Your task to perform on an android device: choose inbox layout in the gmail app Image 0: 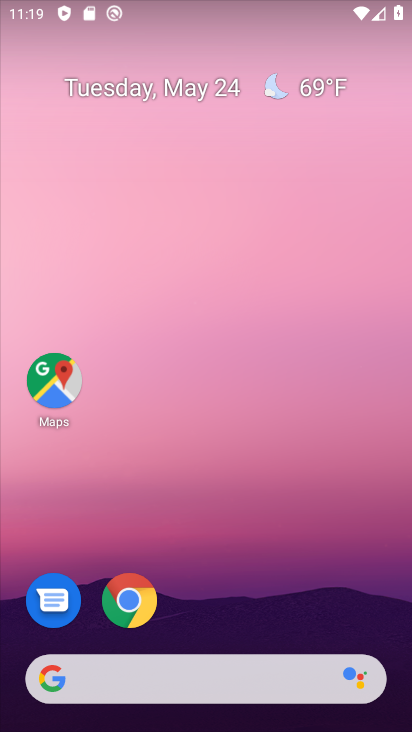
Step 0: drag from (359, 610) to (339, 190)
Your task to perform on an android device: choose inbox layout in the gmail app Image 1: 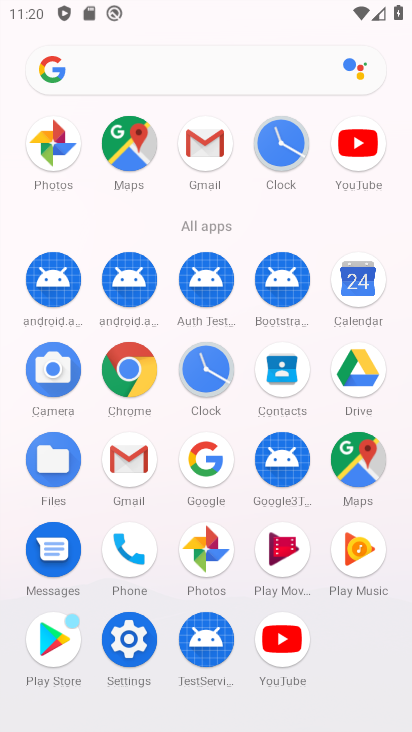
Step 1: click (131, 470)
Your task to perform on an android device: choose inbox layout in the gmail app Image 2: 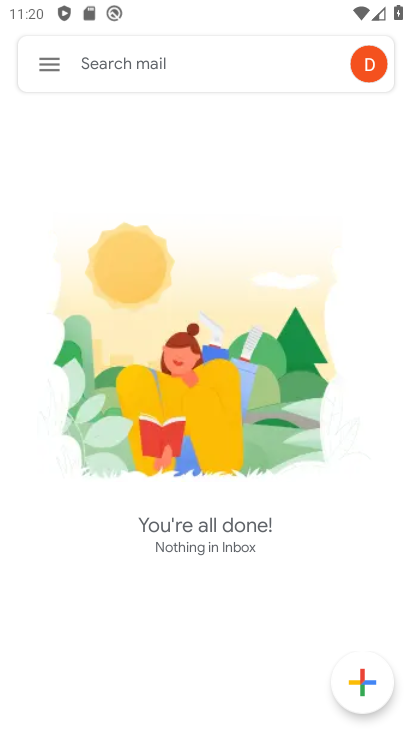
Step 2: click (48, 71)
Your task to perform on an android device: choose inbox layout in the gmail app Image 3: 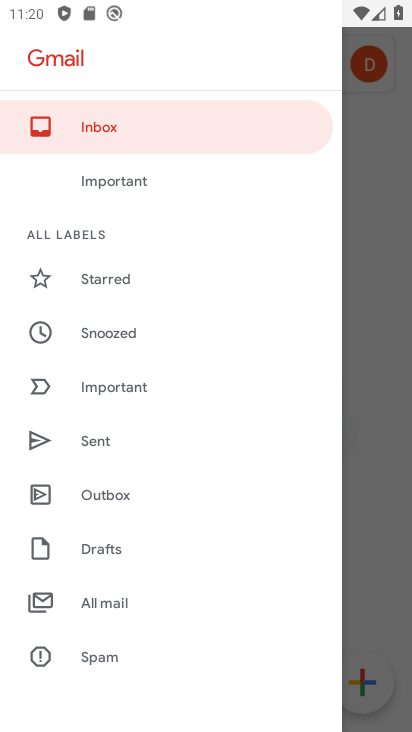
Step 3: drag from (275, 536) to (283, 420)
Your task to perform on an android device: choose inbox layout in the gmail app Image 4: 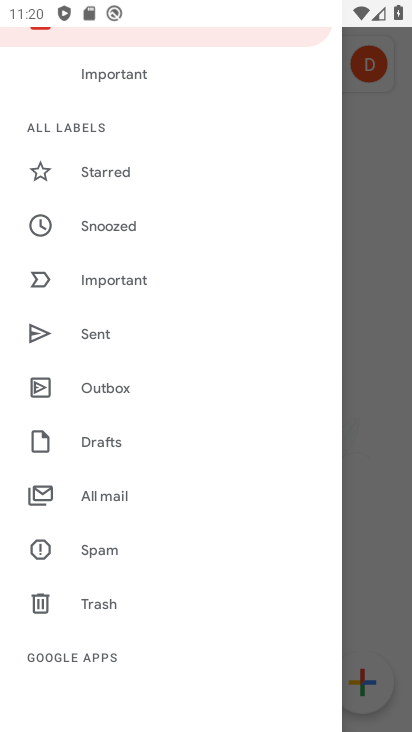
Step 4: drag from (266, 528) to (290, 423)
Your task to perform on an android device: choose inbox layout in the gmail app Image 5: 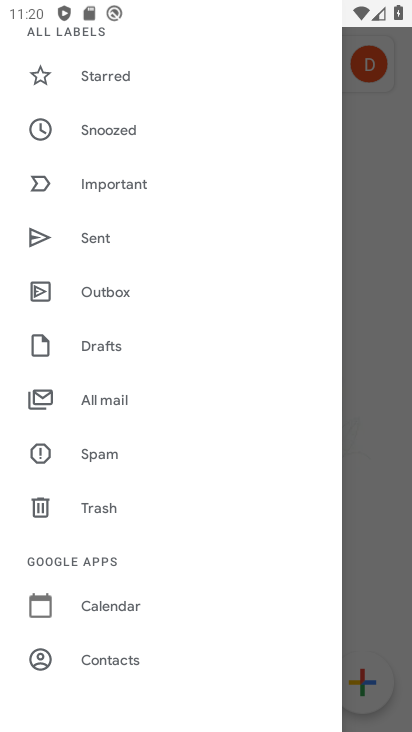
Step 5: drag from (273, 535) to (280, 437)
Your task to perform on an android device: choose inbox layout in the gmail app Image 6: 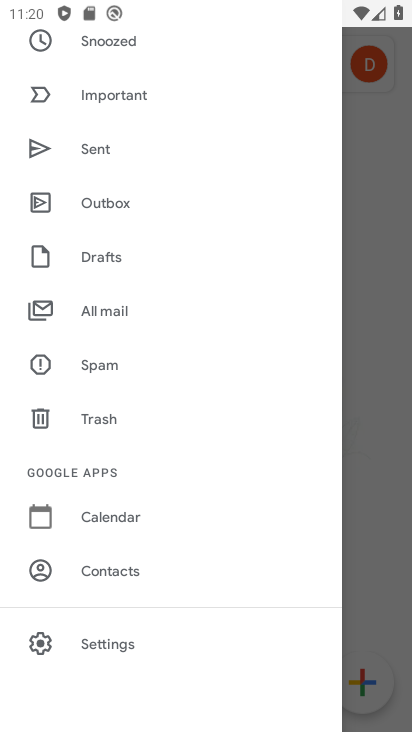
Step 6: drag from (262, 555) to (258, 464)
Your task to perform on an android device: choose inbox layout in the gmail app Image 7: 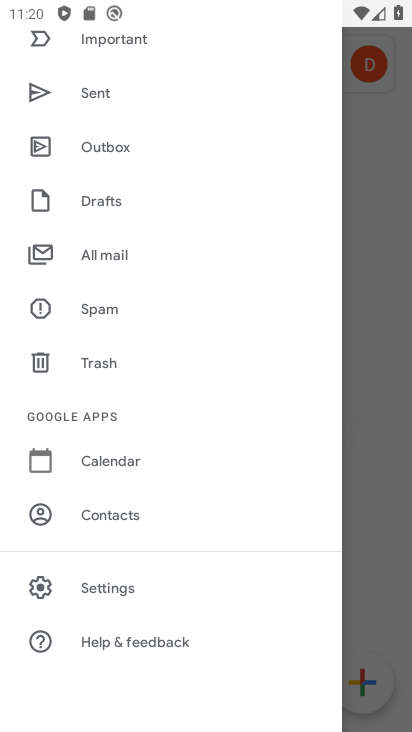
Step 7: drag from (253, 588) to (274, 470)
Your task to perform on an android device: choose inbox layout in the gmail app Image 8: 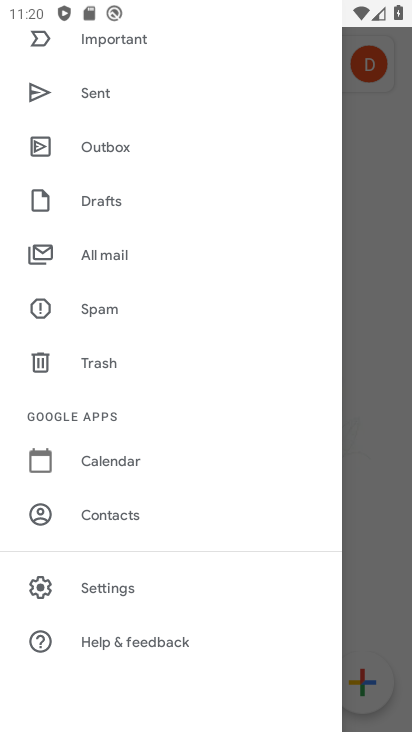
Step 8: drag from (266, 325) to (255, 430)
Your task to perform on an android device: choose inbox layout in the gmail app Image 9: 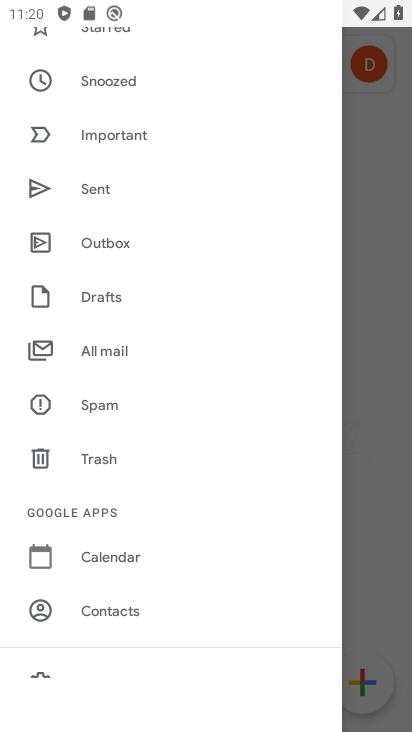
Step 9: drag from (266, 305) to (269, 412)
Your task to perform on an android device: choose inbox layout in the gmail app Image 10: 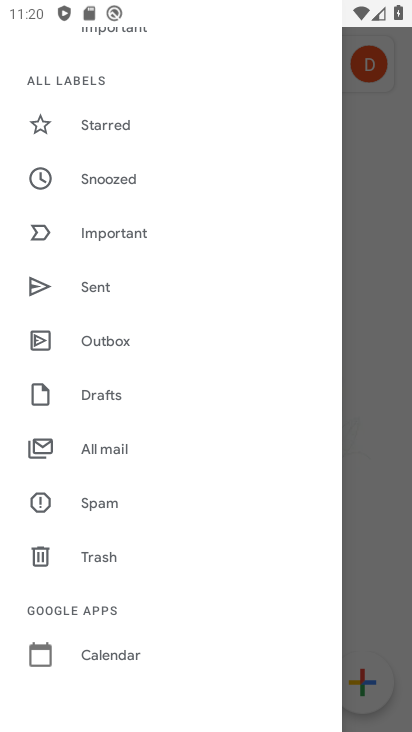
Step 10: drag from (285, 295) to (284, 385)
Your task to perform on an android device: choose inbox layout in the gmail app Image 11: 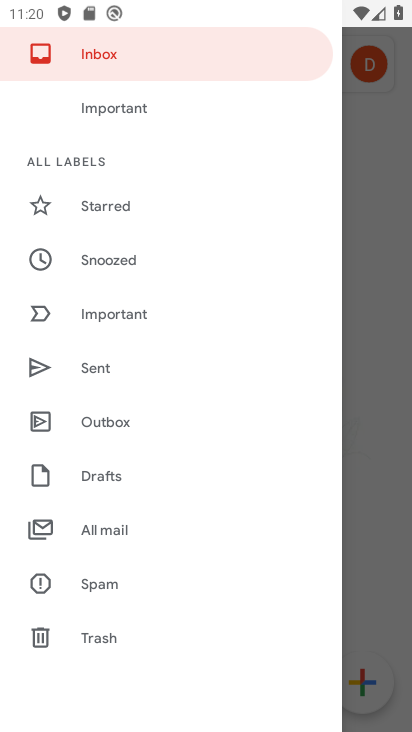
Step 11: drag from (277, 274) to (280, 381)
Your task to perform on an android device: choose inbox layout in the gmail app Image 12: 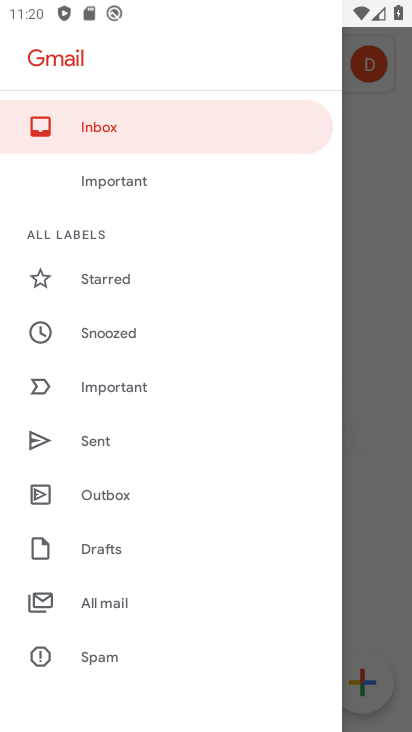
Step 12: drag from (293, 237) to (294, 342)
Your task to perform on an android device: choose inbox layout in the gmail app Image 13: 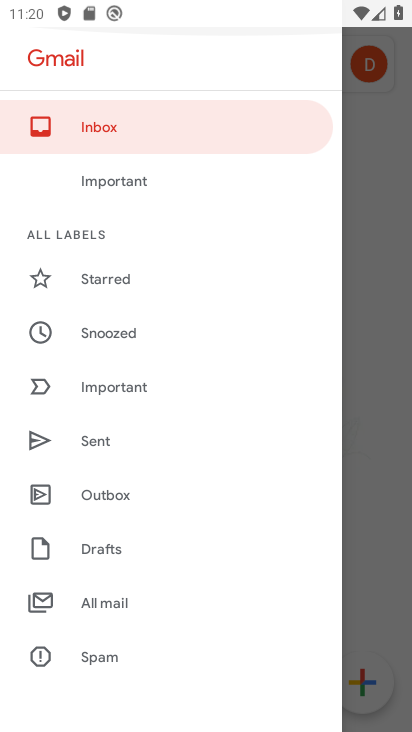
Step 13: drag from (294, 419) to (291, 352)
Your task to perform on an android device: choose inbox layout in the gmail app Image 14: 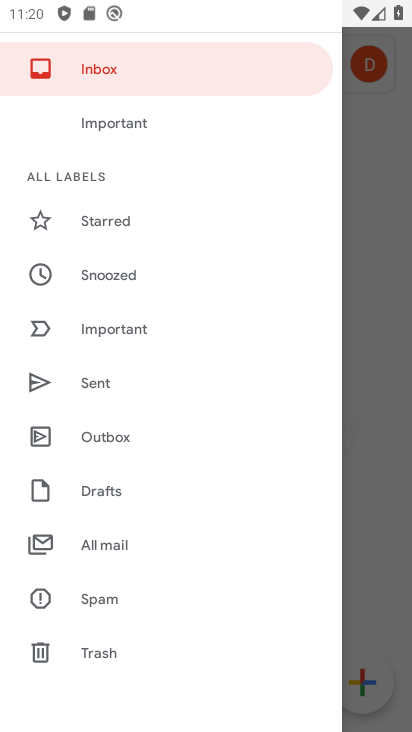
Step 14: drag from (290, 430) to (289, 365)
Your task to perform on an android device: choose inbox layout in the gmail app Image 15: 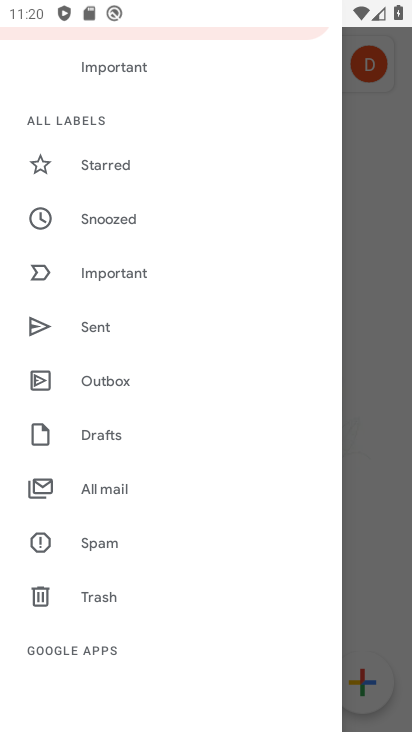
Step 15: drag from (287, 440) to (283, 366)
Your task to perform on an android device: choose inbox layout in the gmail app Image 16: 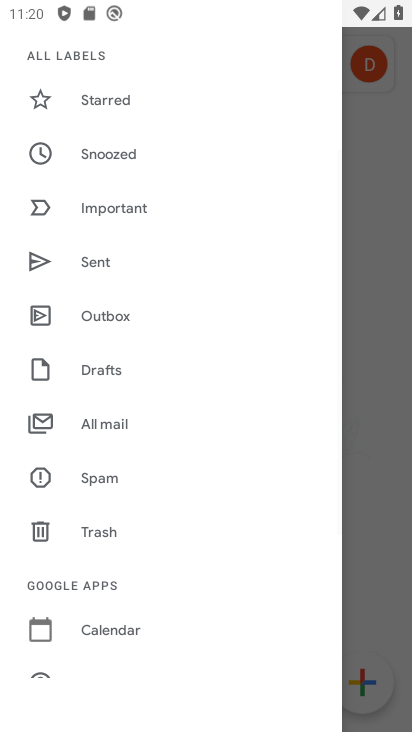
Step 16: drag from (278, 452) to (283, 377)
Your task to perform on an android device: choose inbox layout in the gmail app Image 17: 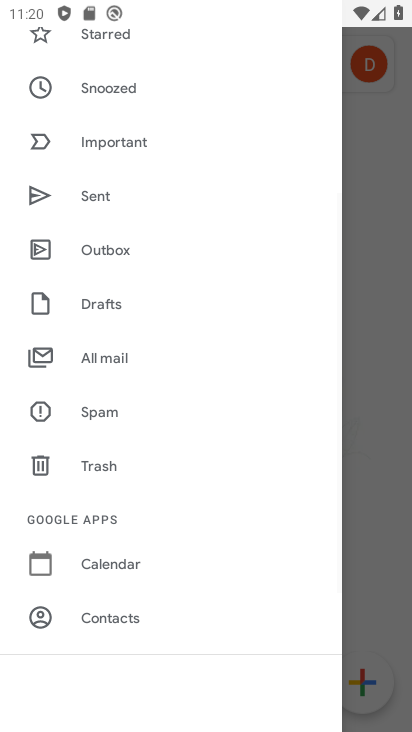
Step 17: drag from (279, 462) to (281, 386)
Your task to perform on an android device: choose inbox layout in the gmail app Image 18: 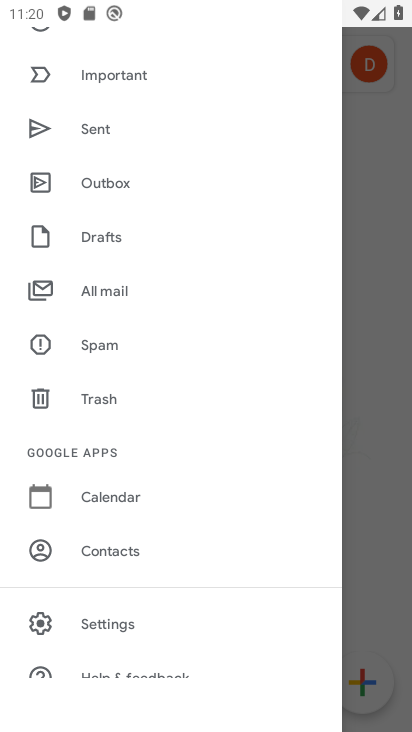
Step 18: drag from (265, 468) to (256, 400)
Your task to perform on an android device: choose inbox layout in the gmail app Image 19: 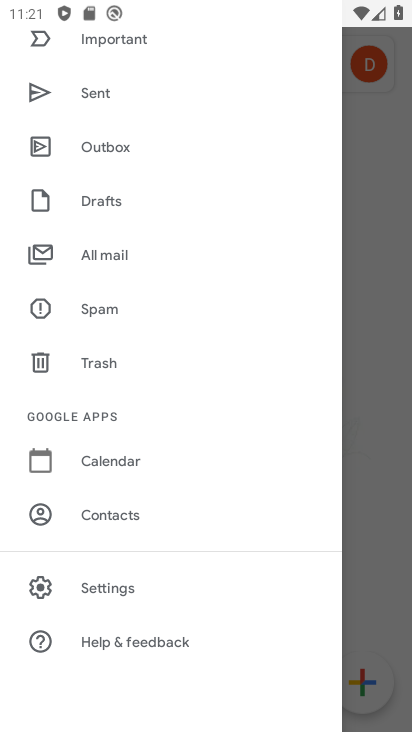
Step 19: click (170, 586)
Your task to perform on an android device: choose inbox layout in the gmail app Image 20: 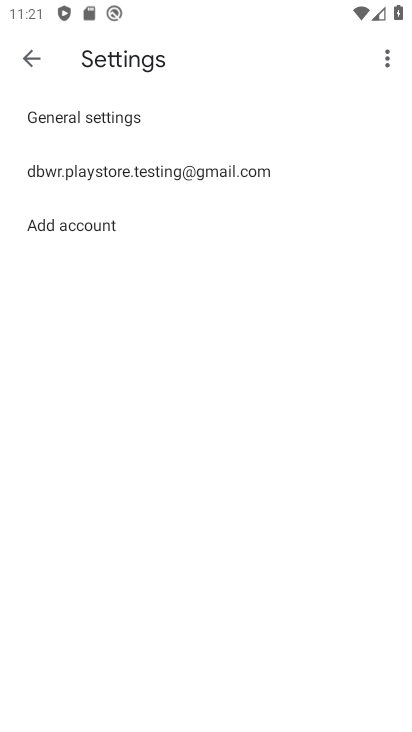
Step 20: click (156, 171)
Your task to perform on an android device: choose inbox layout in the gmail app Image 21: 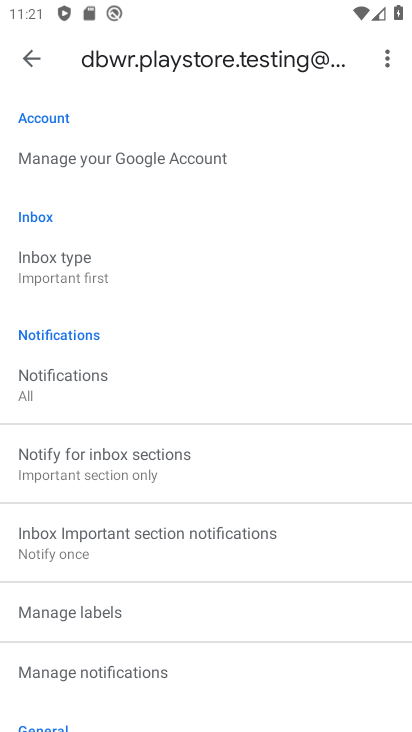
Step 21: click (116, 281)
Your task to perform on an android device: choose inbox layout in the gmail app Image 22: 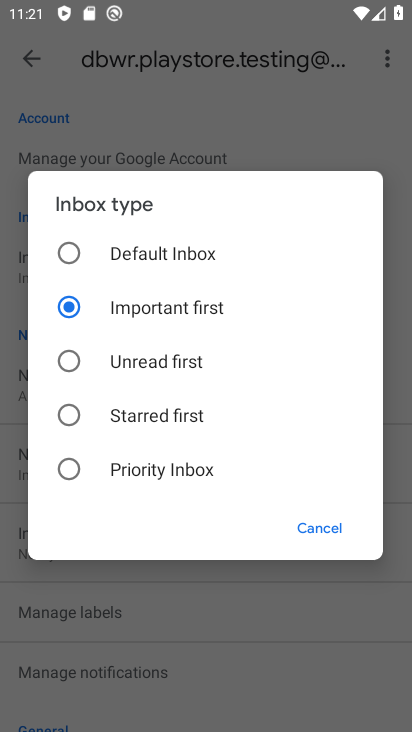
Step 22: click (138, 372)
Your task to perform on an android device: choose inbox layout in the gmail app Image 23: 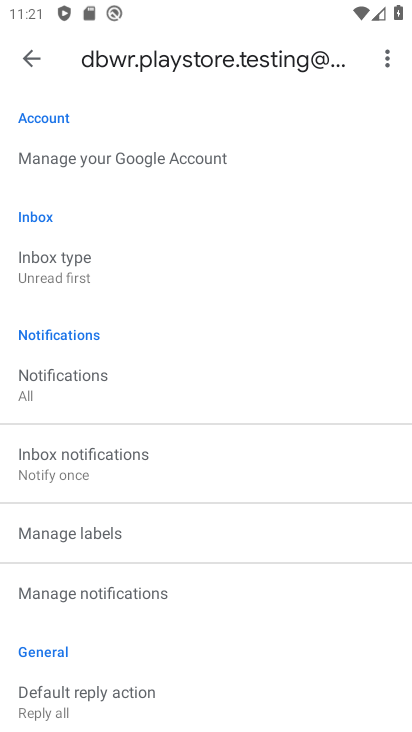
Step 23: task complete